Your task to perform on an android device: Go to display settings Image 0: 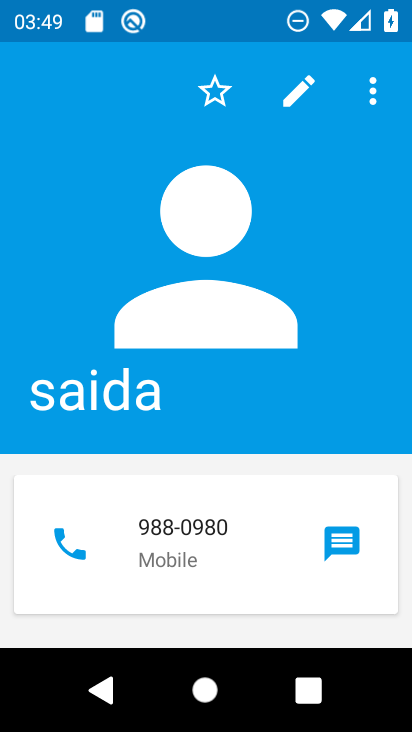
Step 0: press home button
Your task to perform on an android device: Go to display settings Image 1: 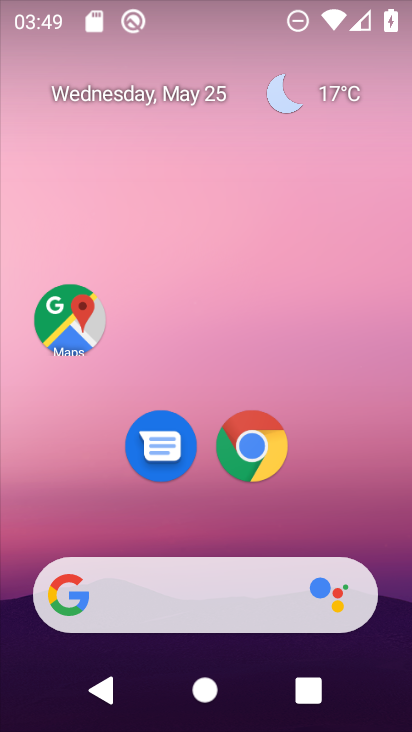
Step 1: drag from (233, 576) to (245, 270)
Your task to perform on an android device: Go to display settings Image 2: 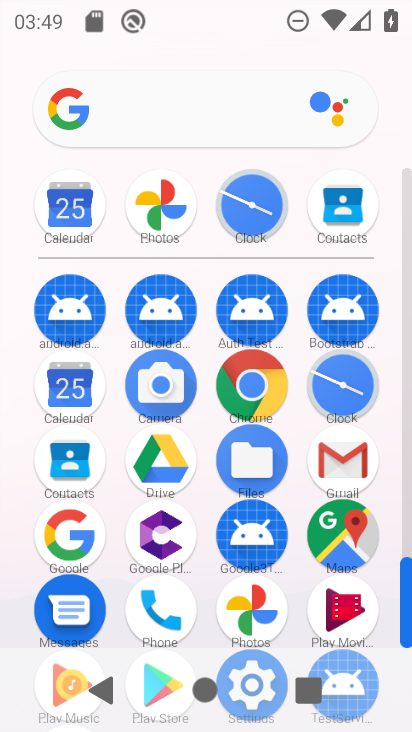
Step 2: drag from (256, 588) to (267, 277)
Your task to perform on an android device: Go to display settings Image 3: 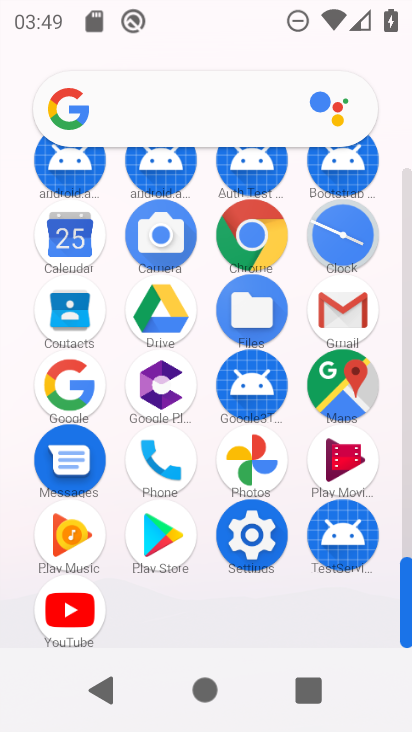
Step 3: click (244, 561)
Your task to perform on an android device: Go to display settings Image 4: 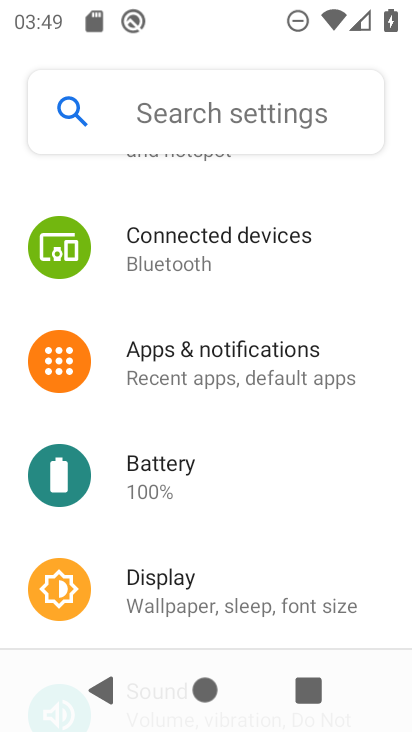
Step 4: click (137, 572)
Your task to perform on an android device: Go to display settings Image 5: 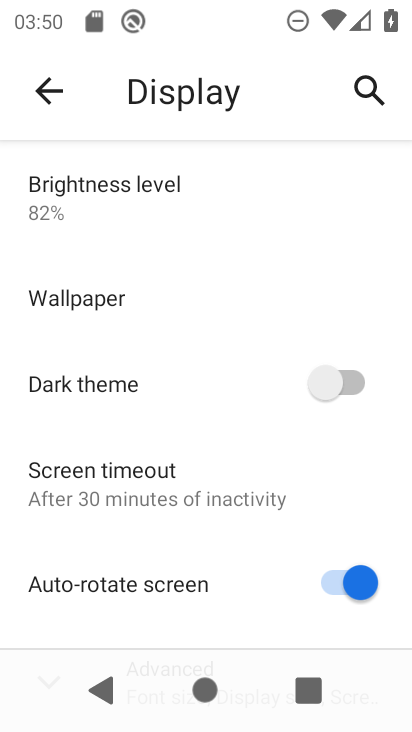
Step 5: task complete